Your task to perform on an android device: turn off wifi Image 0: 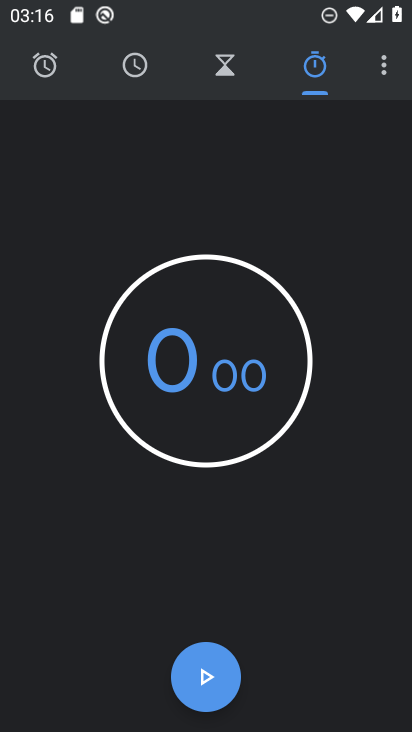
Step 0: press home button
Your task to perform on an android device: turn off wifi Image 1: 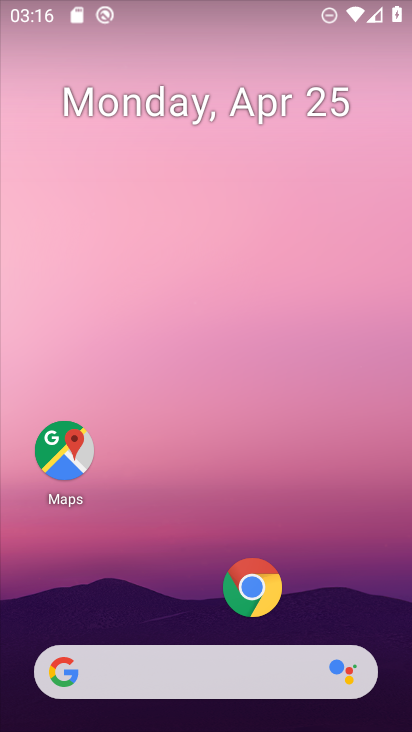
Step 1: drag from (198, 619) to (256, 14)
Your task to perform on an android device: turn off wifi Image 2: 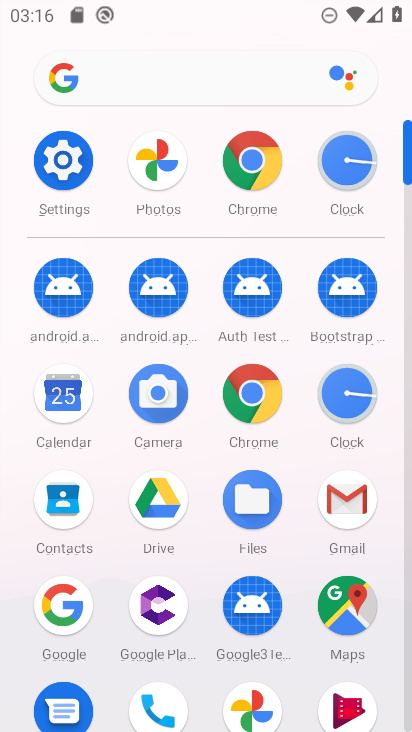
Step 2: click (58, 153)
Your task to perform on an android device: turn off wifi Image 3: 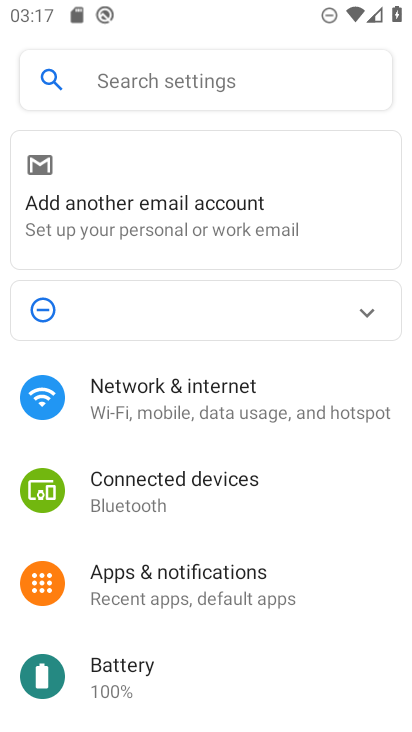
Step 3: click (170, 399)
Your task to perform on an android device: turn off wifi Image 4: 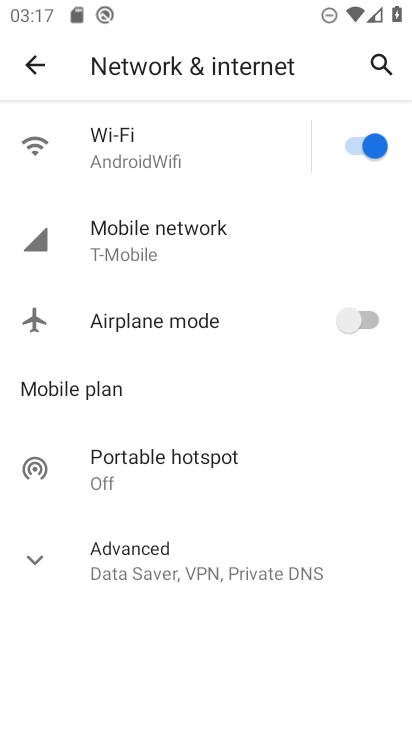
Step 4: click (354, 148)
Your task to perform on an android device: turn off wifi Image 5: 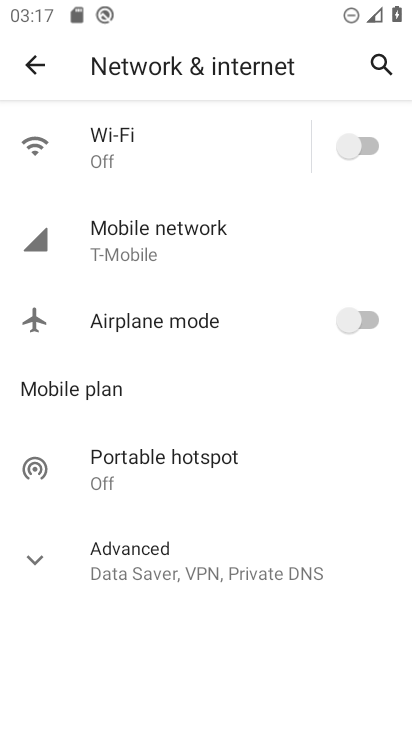
Step 5: task complete